Your task to perform on an android device: open a new tab in the chrome app Image 0: 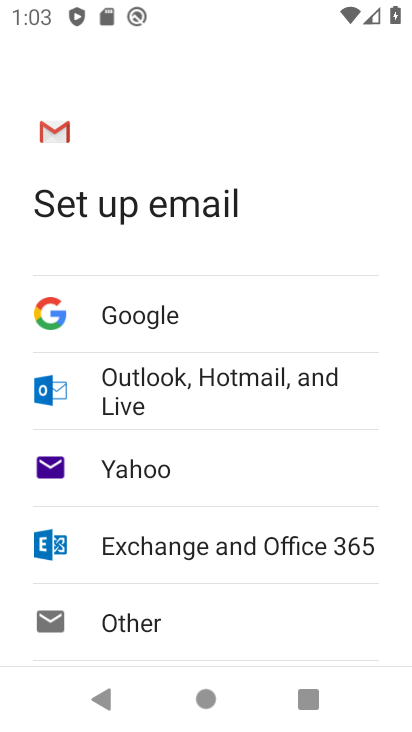
Step 0: press home button
Your task to perform on an android device: open a new tab in the chrome app Image 1: 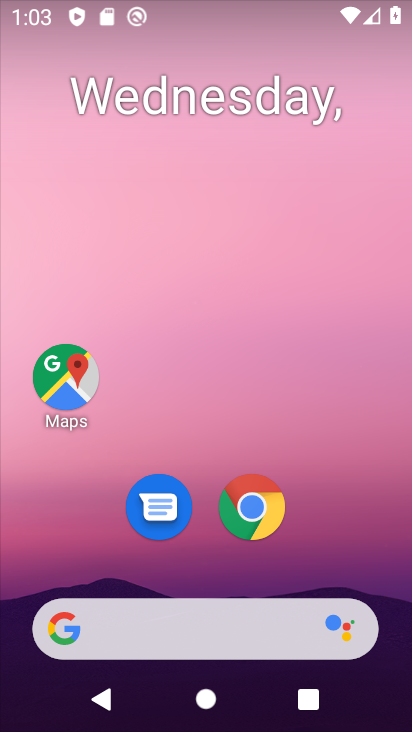
Step 1: click (231, 505)
Your task to perform on an android device: open a new tab in the chrome app Image 2: 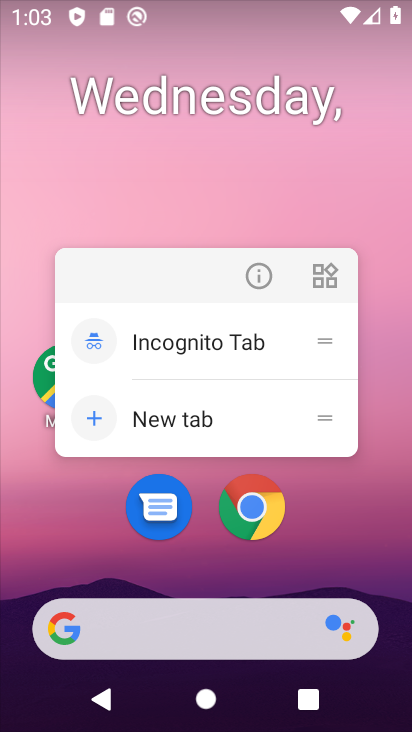
Step 2: click (243, 497)
Your task to perform on an android device: open a new tab in the chrome app Image 3: 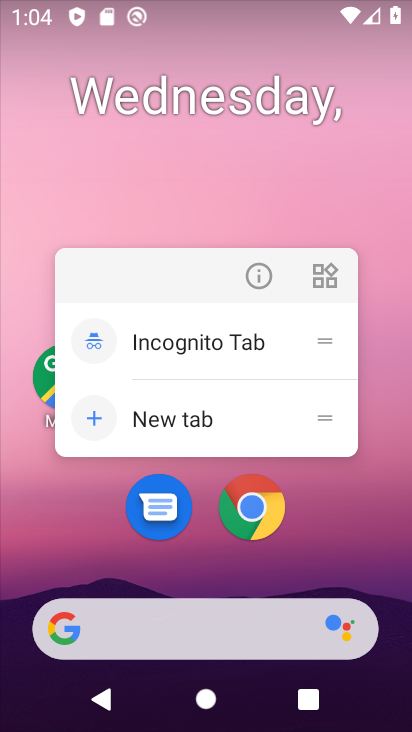
Step 3: click (243, 497)
Your task to perform on an android device: open a new tab in the chrome app Image 4: 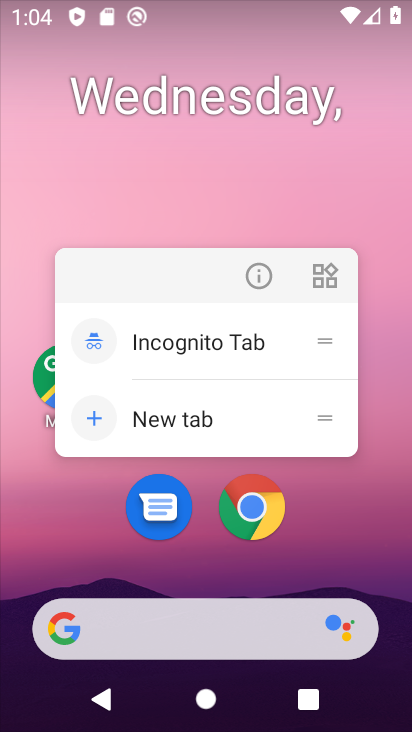
Step 4: click (158, 428)
Your task to perform on an android device: open a new tab in the chrome app Image 5: 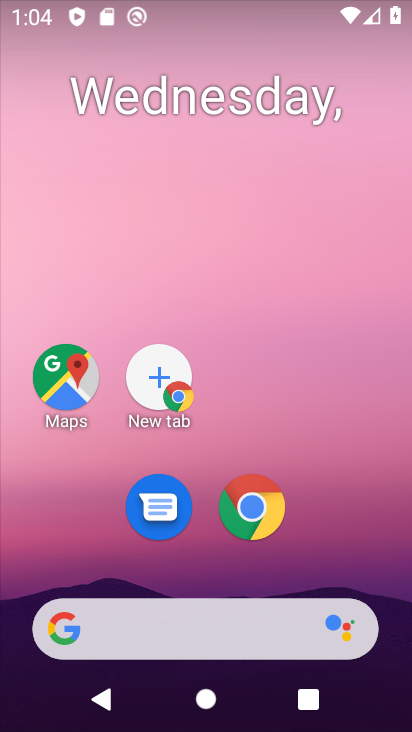
Step 5: task complete